Your task to perform on an android device: turn on notifications settings in the gmail app Image 0: 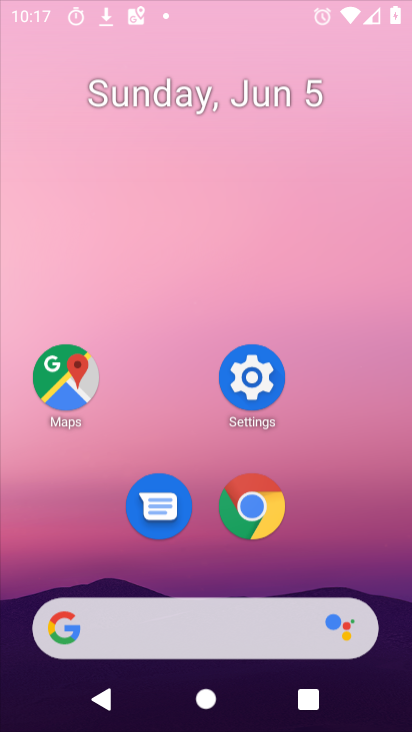
Step 0: drag from (241, 661) to (254, 157)
Your task to perform on an android device: turn on notifications settings in the gmail app Image 1: 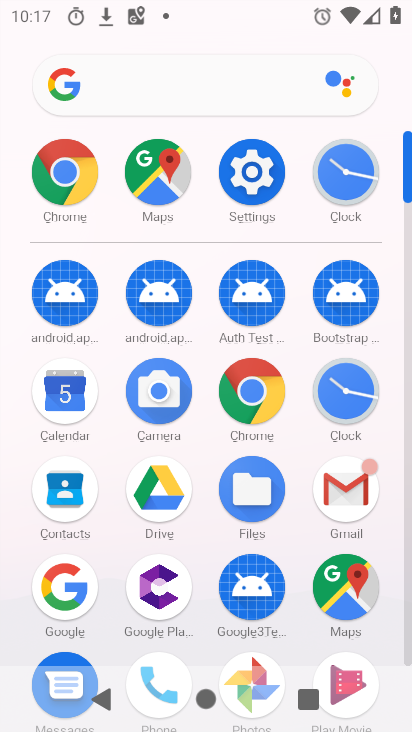
Step 1: click (349, 501)
Your task to perform on an android device: turn on notifications settings in the gmail app Image 2: 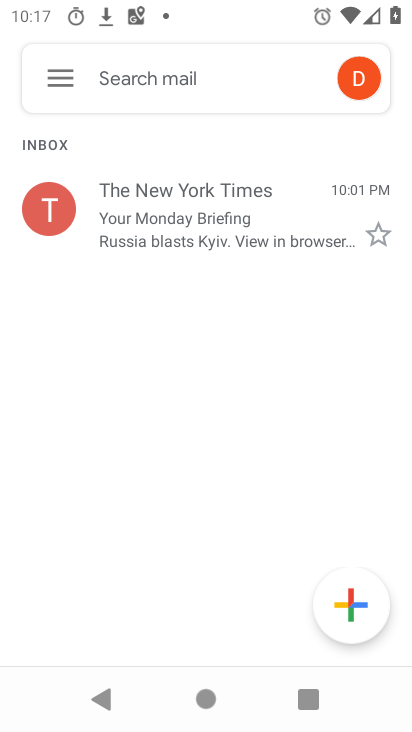
Step 2: click (48, 79)
Your task to perform on an android device: turn on notifications settings in the gmail app Image 3: 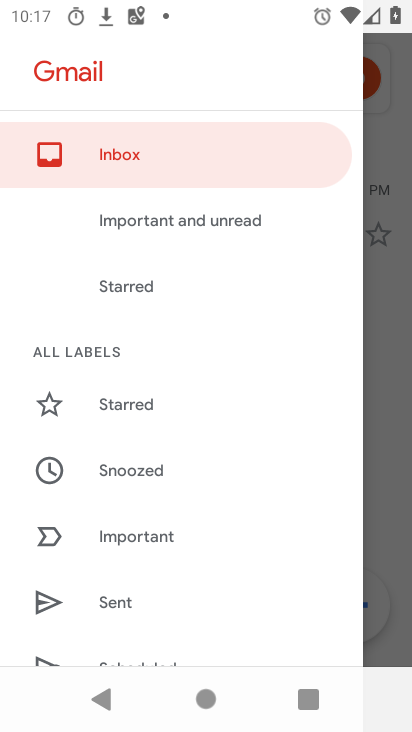
Step 3: drag from (170, 568) to (198, 183)
Your task to perform on an android device: turn on notifications settings in the gmail app Image 4: 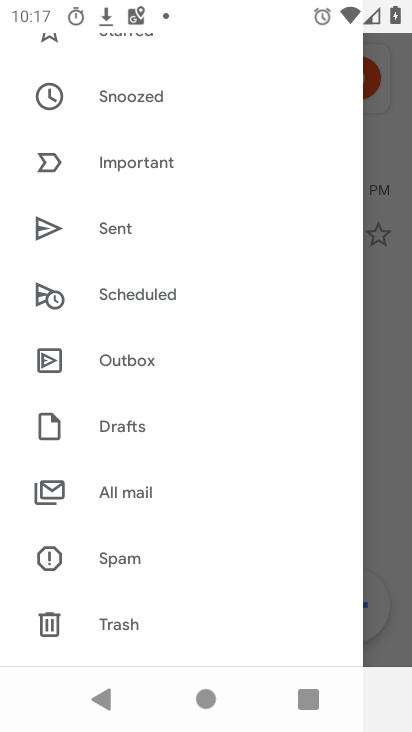
Step 4: drag from (173, 574) to (86, 161)
Your task to perform on an android device: turn on notifications settings in the gmail app Image 5: 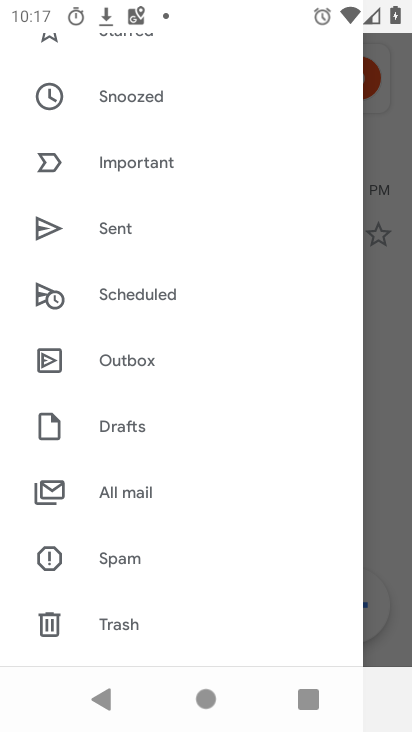
Step 5: drag from (129, 501) to (132, 322)
Your task to perform on an android device: turn on notifications settings in the gmail app Image 6: 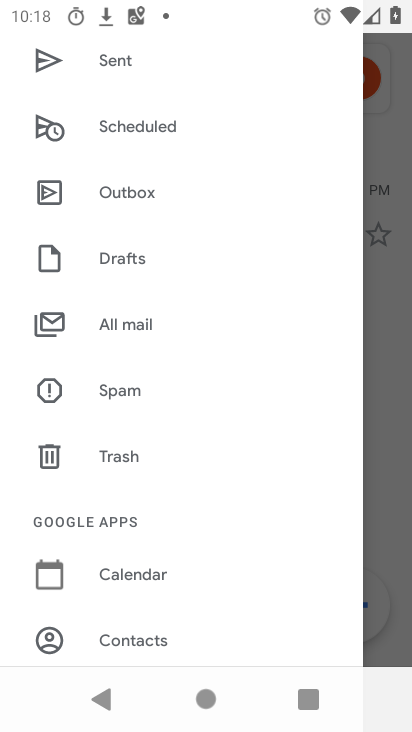
Step 6: drag from (156, 619) to (162, 317)
Your task to perform on an android device: turn on notifications settings in the gmail app Image 7: 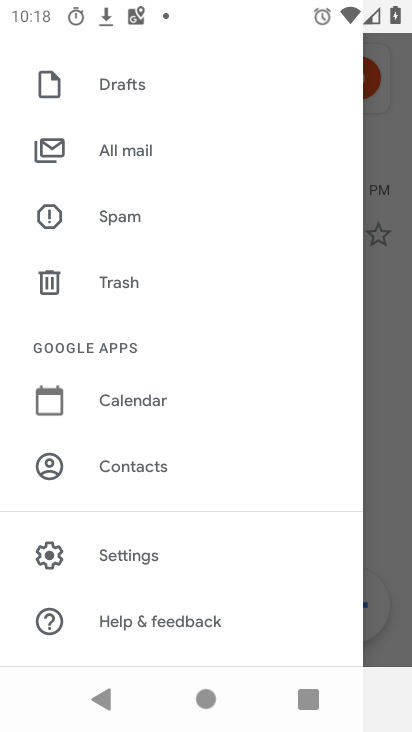
Step 7: click (137, 554)
Your task to perform on an android device: turn on notifications settings in the gmail app Image 8: 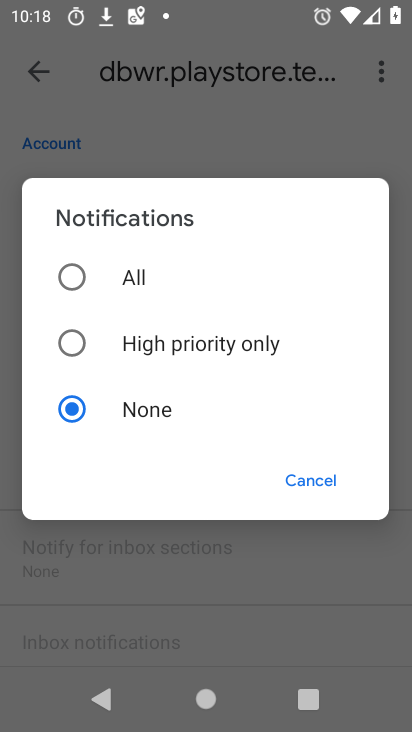
Step 8: task complete